Your task to perform on an android device: turn off priority inbox in the gmail app Image 0: 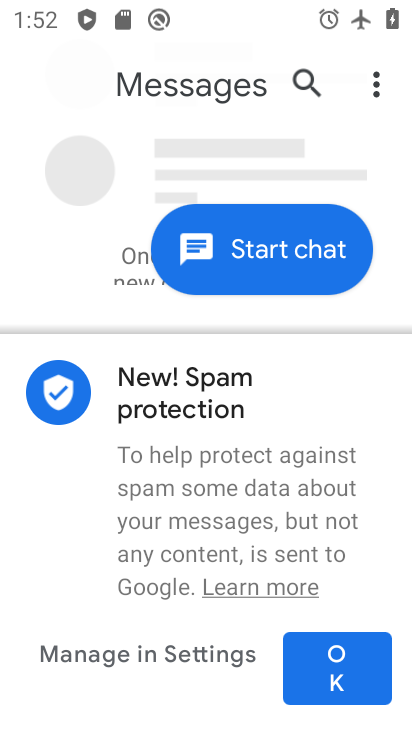
Step 0: press home button
Your task to perform on an android device: turn off priority inbox in the gmail app Image 1: 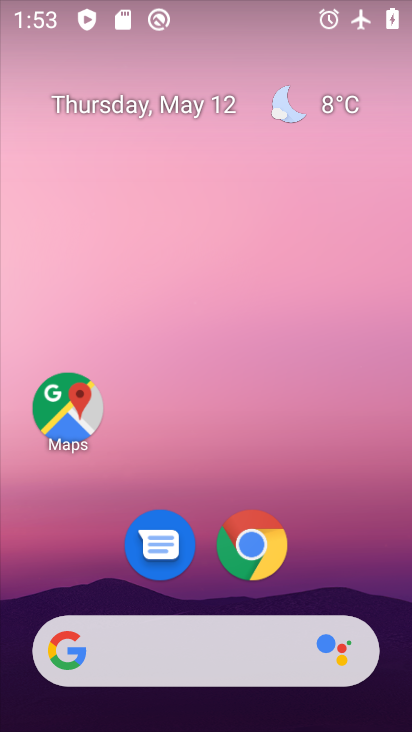
Step 1: drag from (393, 630) to (329, 65)
Your task to perform on an android device: turn off priority inbox in the gmail app Image 2: 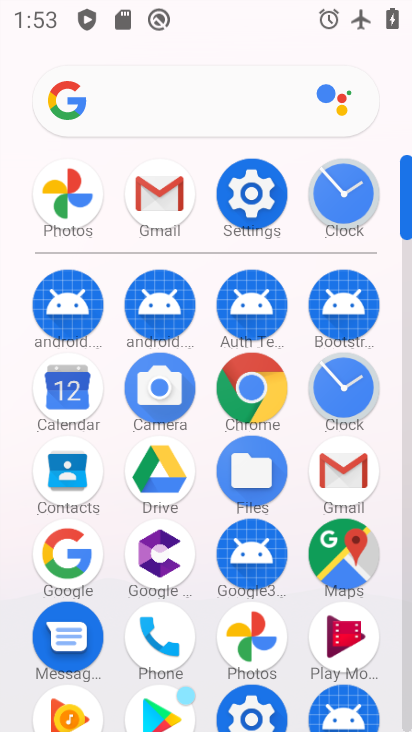
Step 2: click (406, 697)
Your task to perform on an android device: turn off priority inbox in the gmail app Image 3: 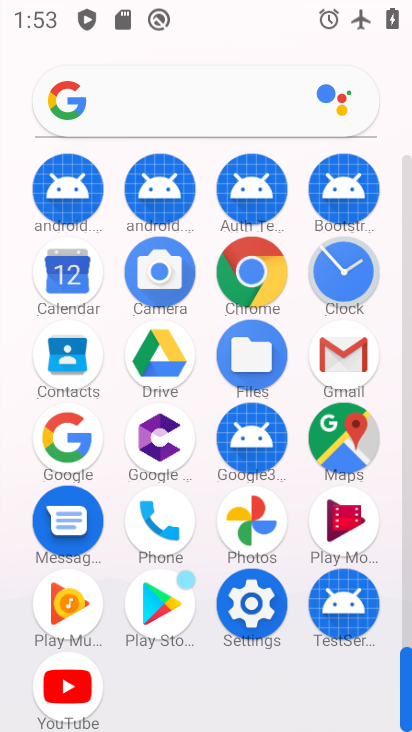
Step 3: click (340, 353)
Your task to perform on an android device: turn off priority inbox in the gmail app Image 4: 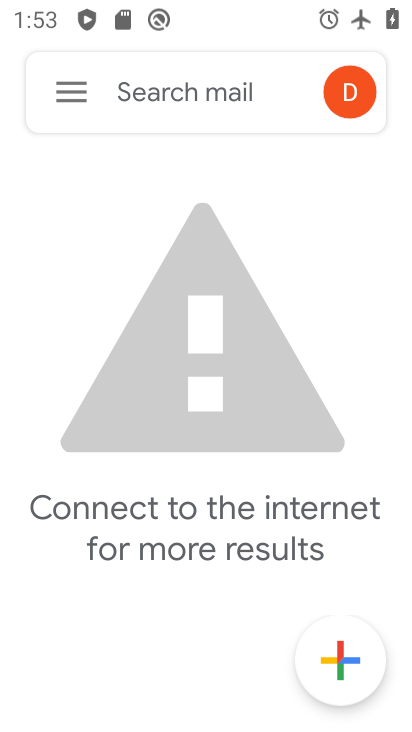
Step 4: click (70, 95)
Your task to perform on an android device: turn off priority inbox in the gmail app Image 5: 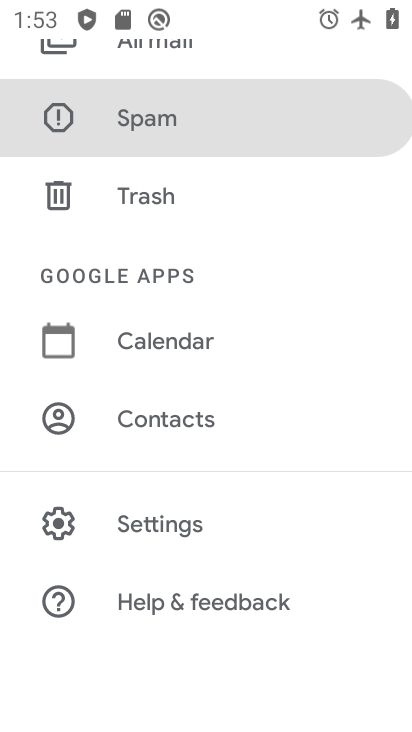
Step 5: click (155, 528)
Your task to perform on an android device: turn off priority inbox in the gmail app Image 6: 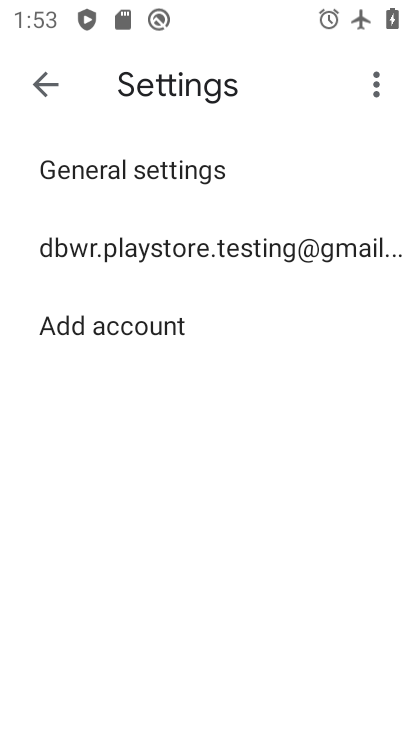
Step 6: click (131, 229)
Your task to perform on an android device: turn off priority inbox in the gmail app Image 7: 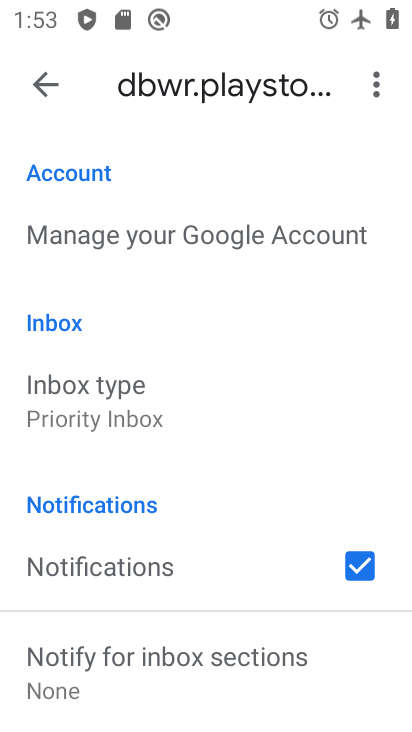
Step 7: click (79, 383)
Your task to perform on an android device: turn off priority inbox in the gmail app Image 8: 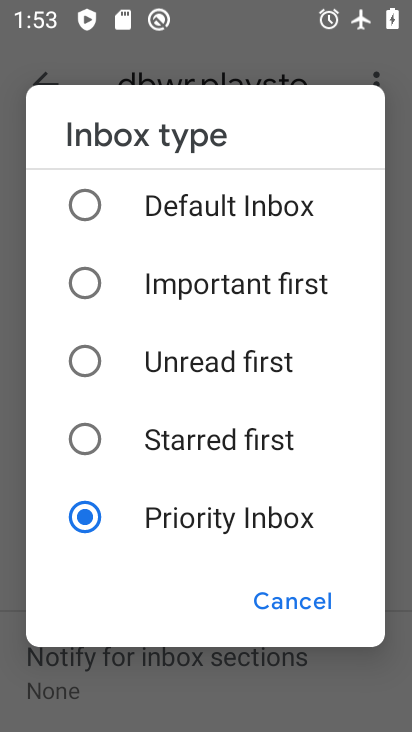
Step 8: click (86, 209)
Your task to perform on an android device: turn off priority inbox in the gmail app Image 9: 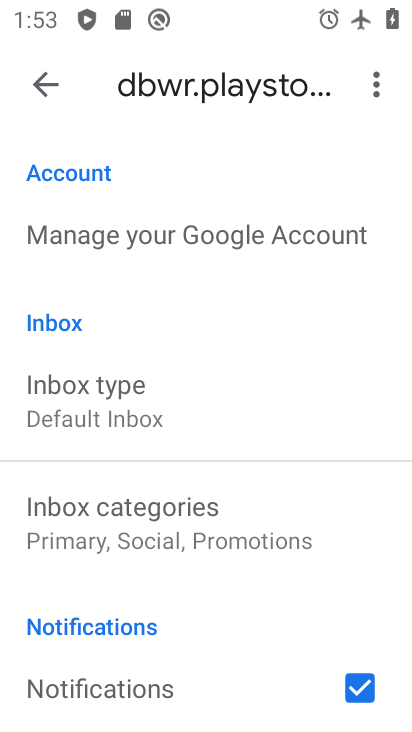
Step 9: task complete